Your task to perform on an android device: Open Maps and search for coffee Image 0: 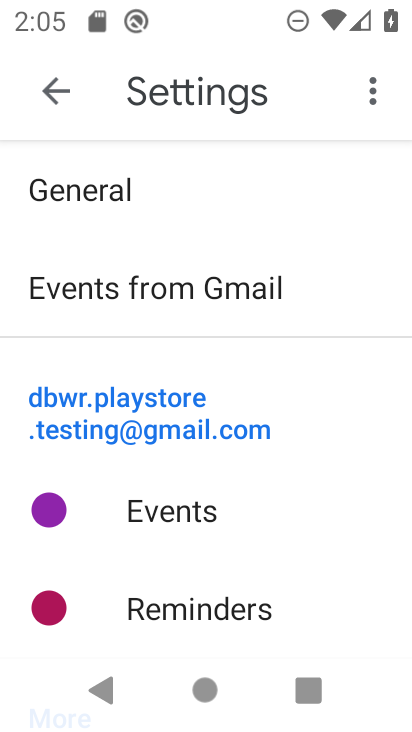
Step 0: press home button
Your task to perform on an android device: Open Maps and search for coffee Image 1: 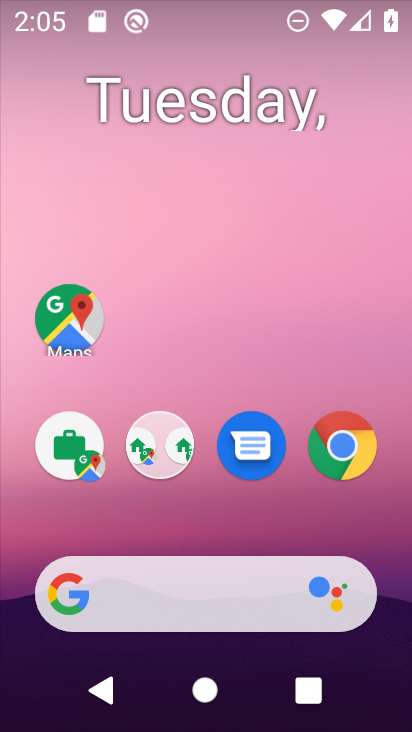
Step 1: click (72, 323)
Your task to perform on an android device: Open Maps and search for coffee Image 2: 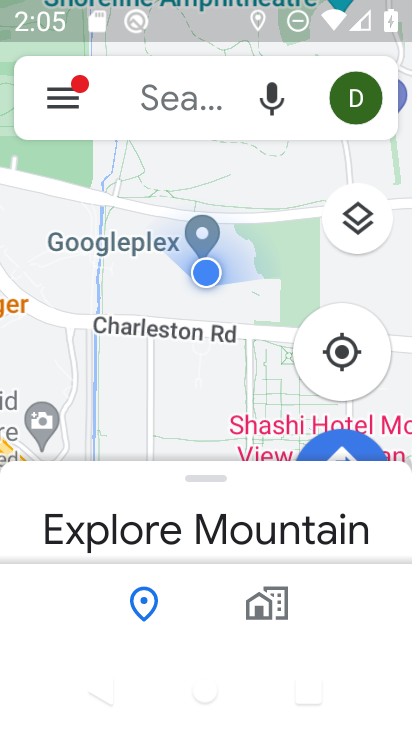
Step 2: click (206, 95)
Your task to perform on an android device: Open Maps and search for coffee Image 3: 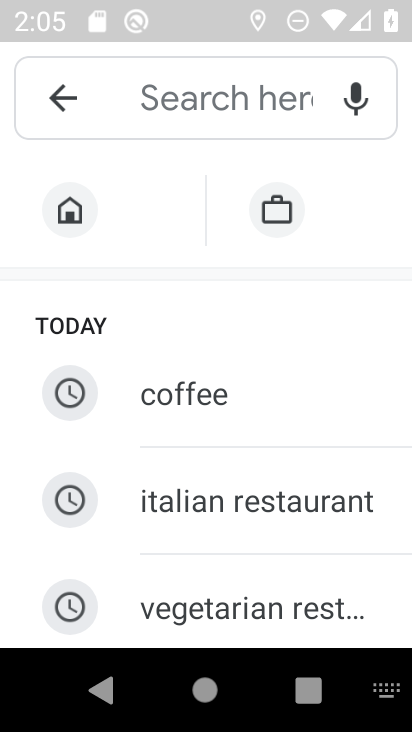
Step 3: click (177, 407)
Your task to perform on an android device: Open Maps and search for coffee Image 4: 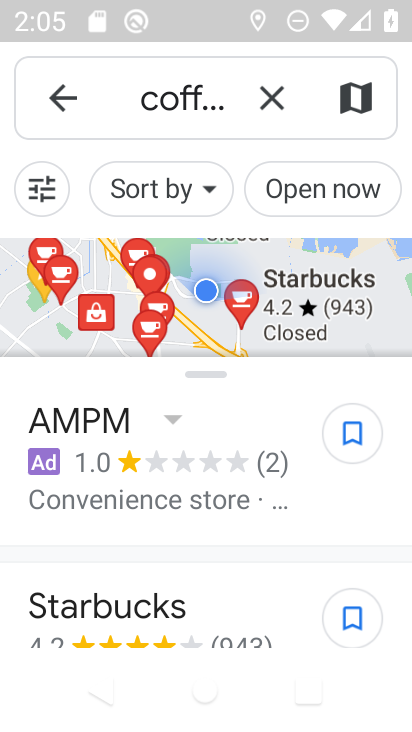
Step 4: task complete